Your task to perform on an android device: delete a single message in the gmail app Image 0: 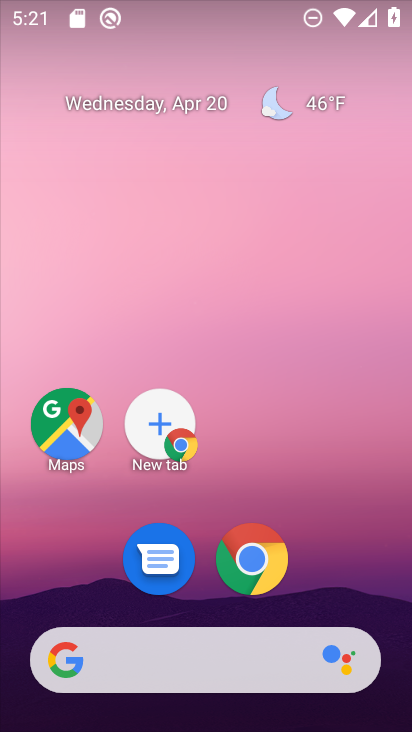
Step 0: drag from (333, 588) to (332, 173)
Your task to perform on an android device: delete a single message in the gmail app Image 1: 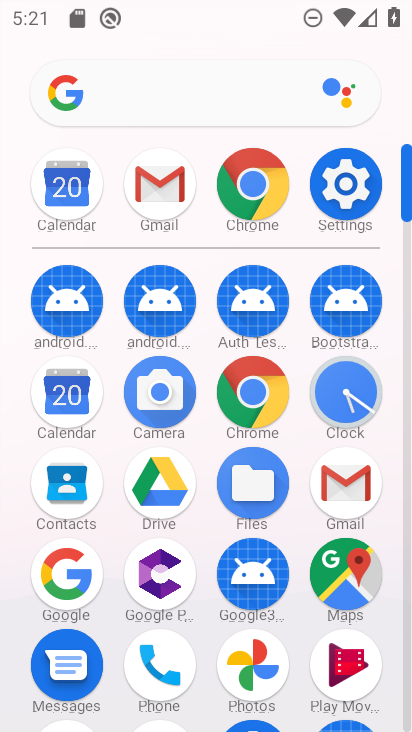
Step 1: click (170, 199)
Your task to perform on an android device: delete a single message in the gmail app Image 2: 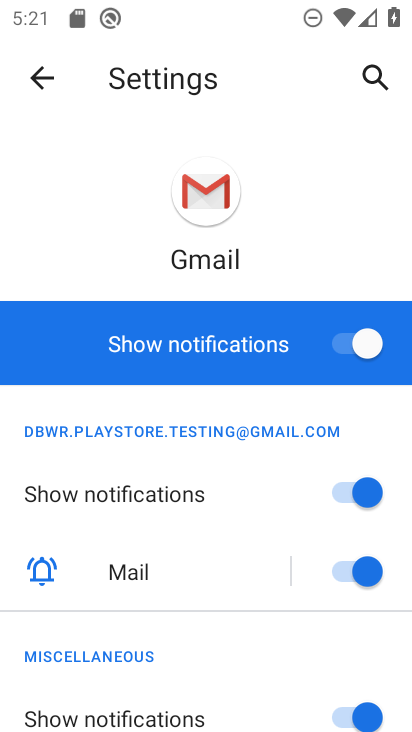
Step 2: click (59, 96)
Your task to perform on an android device: delete a single message in the gmail app Image 3: 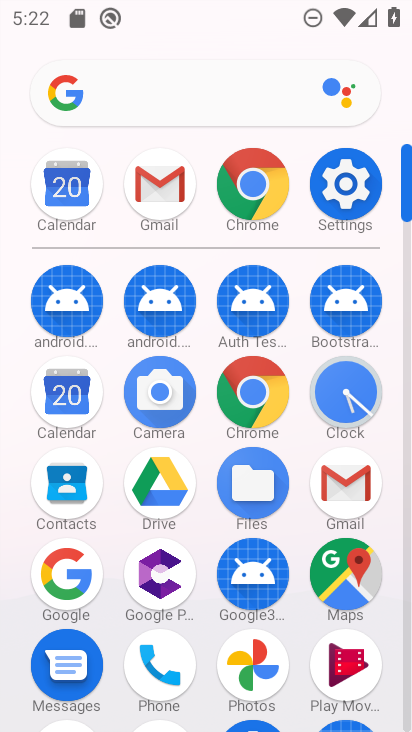
Step 3: click (168, 197)
Your task to perform on an android device: delete a single message in the gmail app Image 4: 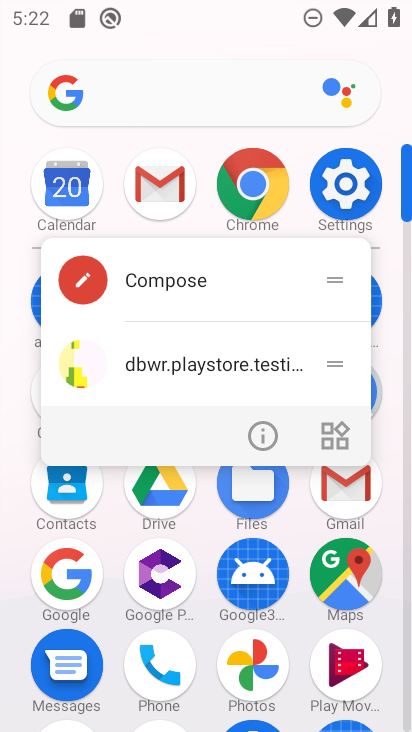
Step 4: click (173, 211)
Your task to perform on an android device: delete a single message in the gmail app Image 5: 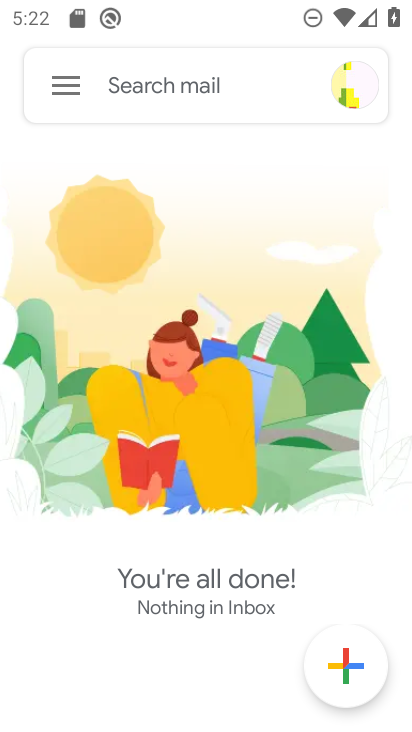
Step 5: click (66, 92)
Your task to perform on an android device: delete a single message in the gmail app Image 6: 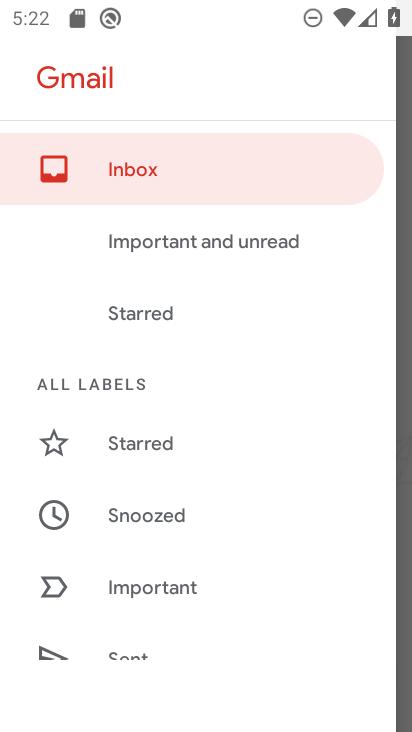
Step 6: drag from (106, 534) to (141, 224)
Your task to perform on an android device: delete a single message in the gmail app Image 7: 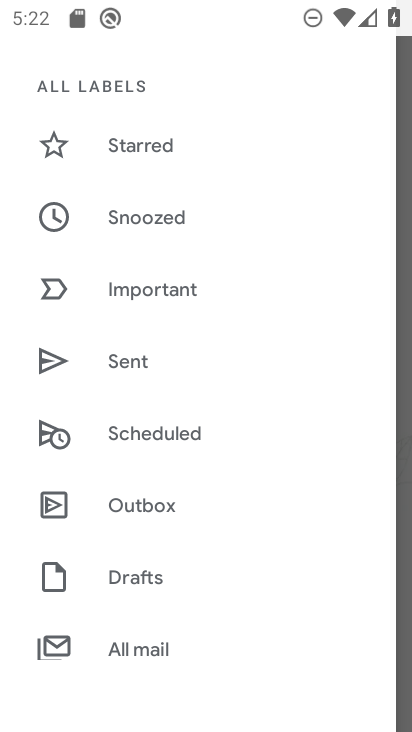
Step 7: click (136, 642)
Your task to perform on an android device: delete a single message in the gmail app Image 8: 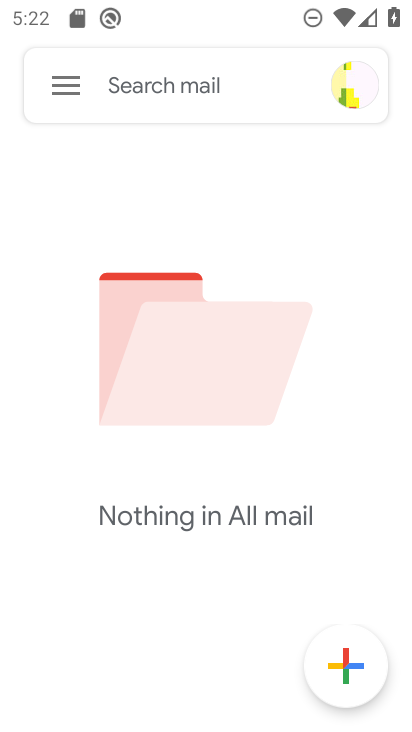
Step 8: task complete